Your task to perform on an android device: Open Yahoo.com Image 0: 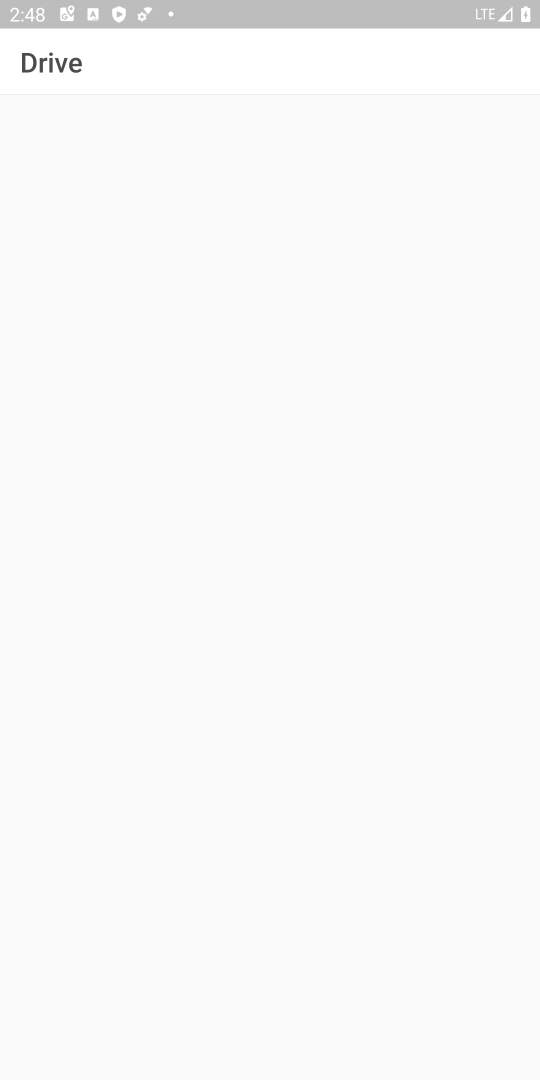
Step 0: press home button
Your task to perform on an android device: Open Yahoo.com Image 1: 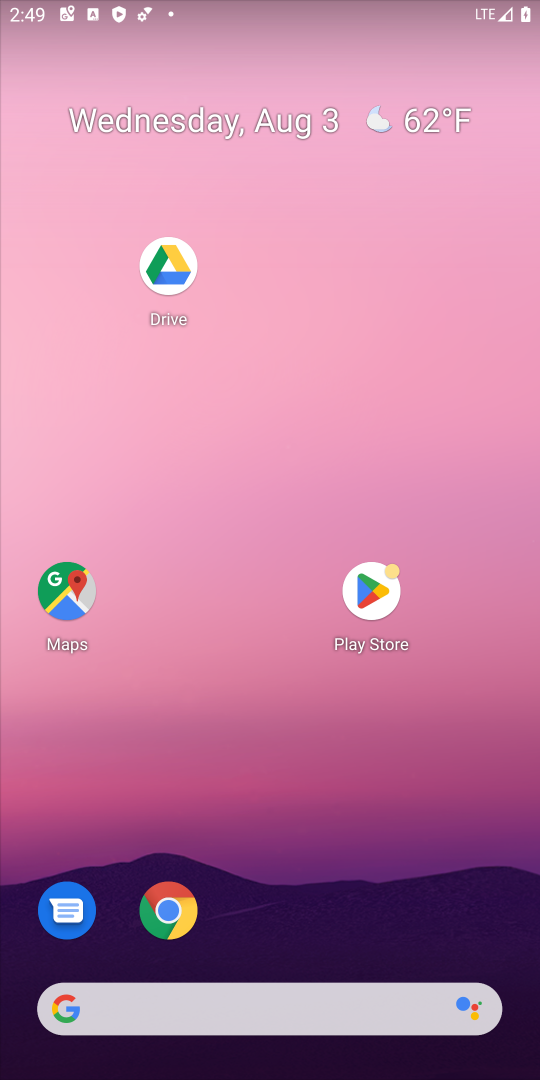
Step 1: drag from (284, 533) to (244, 1)
Your task to perform on an android device: Open Yahoo.com Image 2: 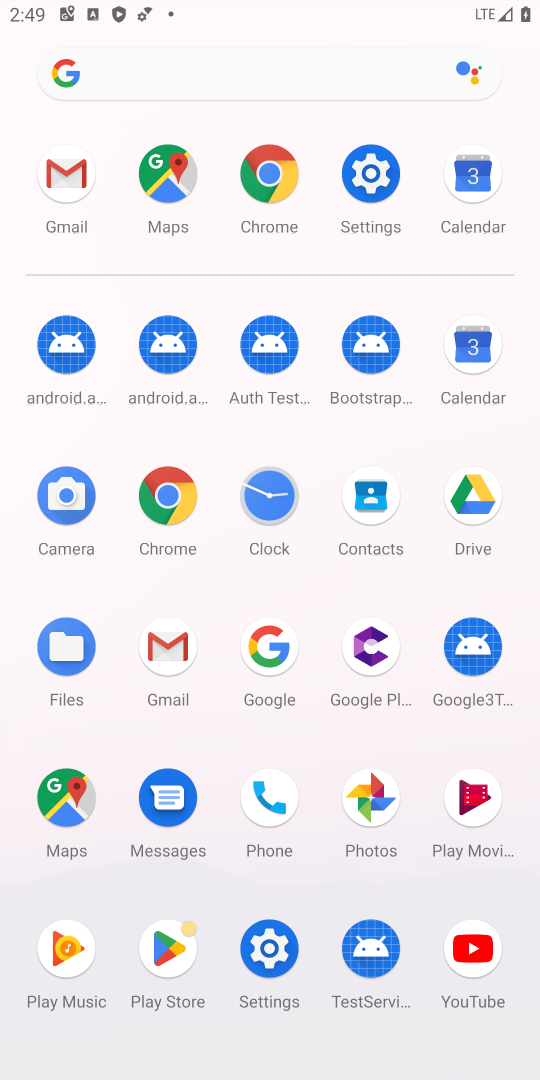
Step 2: click (155, 476)
Your task to perform on an android device: Open Yahoo.com Image 3: 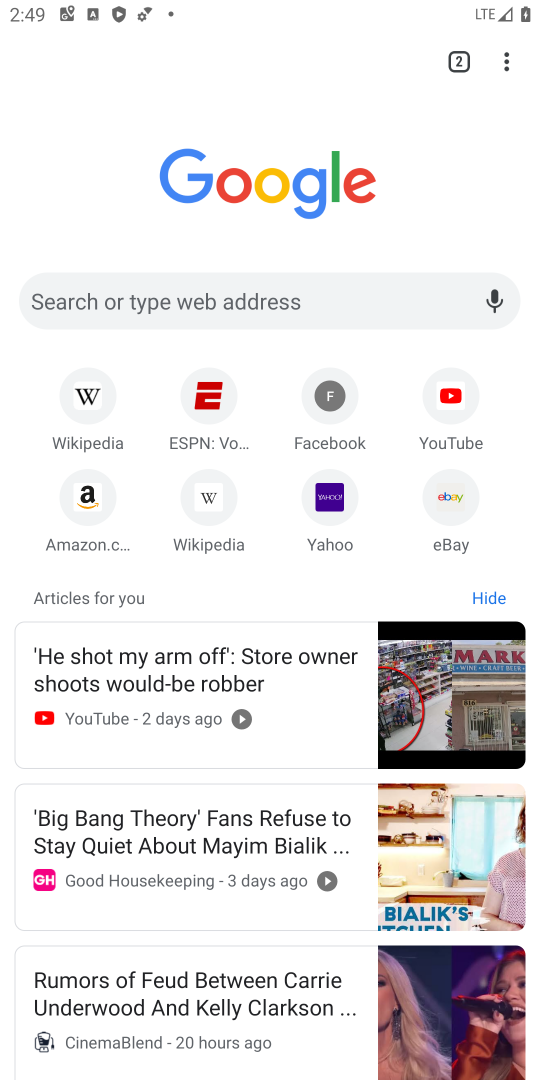
Step 3: click (337, 492)
Your task to perform on an android device: Open Yahoo.com Image 4: 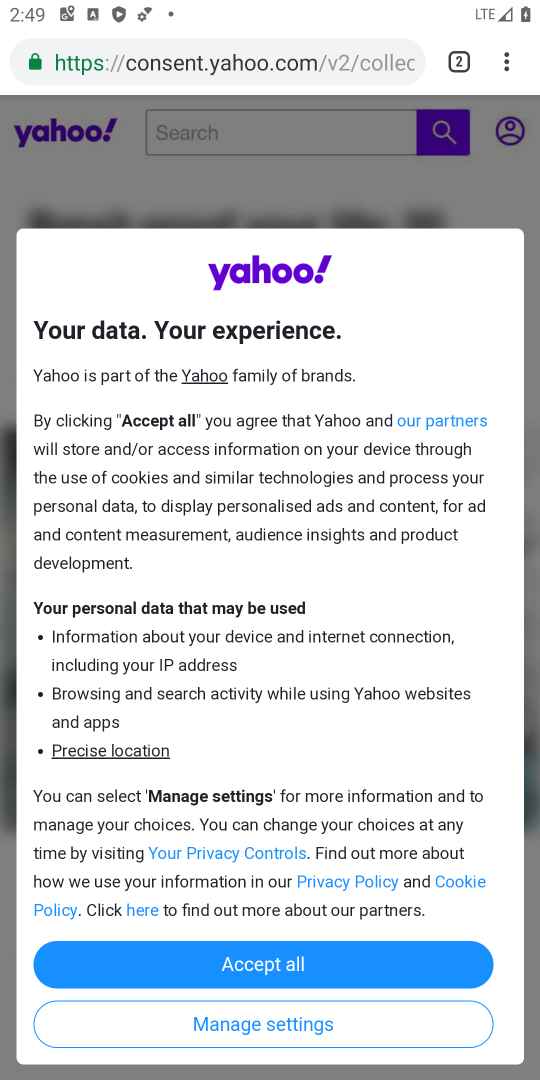
Step 4: task complete